Your task to perform on an android device: turn off improve location accuracy Image 0: 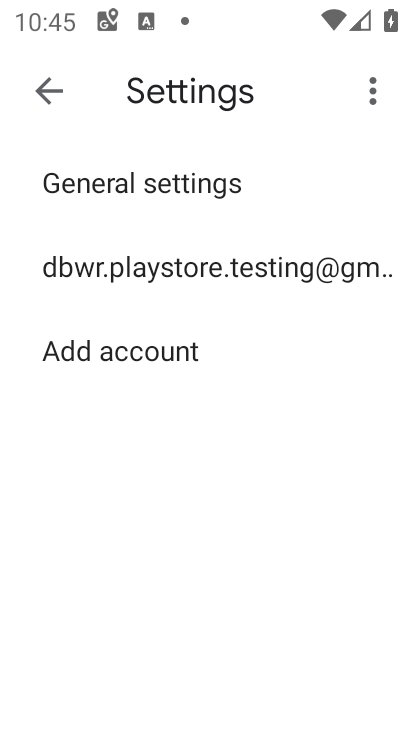
Step 0: press home button
Your task to perform on an android device: turn off improve location accuracy Image 1: 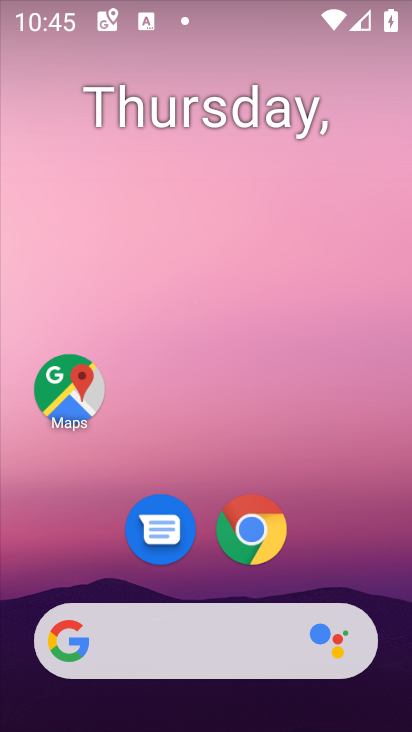
Step 1: drag from (242, 648) to (65, 100)
Your task to perform on an android device: turn off improve location accuracy Image 2: 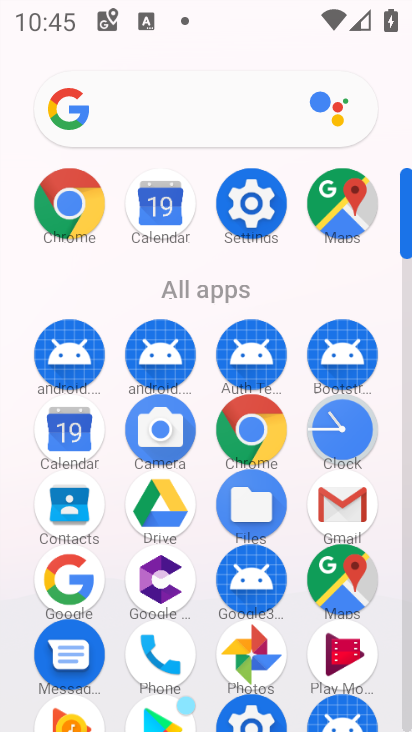
Step 2: click (253, 206)
Your task to perform on an android device: turn off improve location accuracy Image 3: 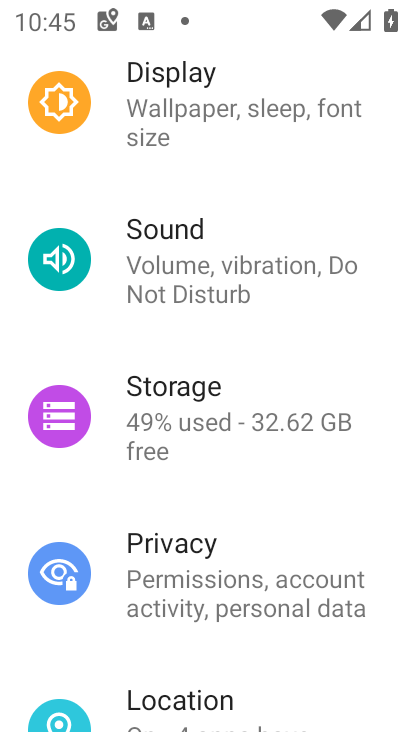
Step 3: click (234, 688)
Your task to perform on an android device: turn off improve location accuracy Image 4: 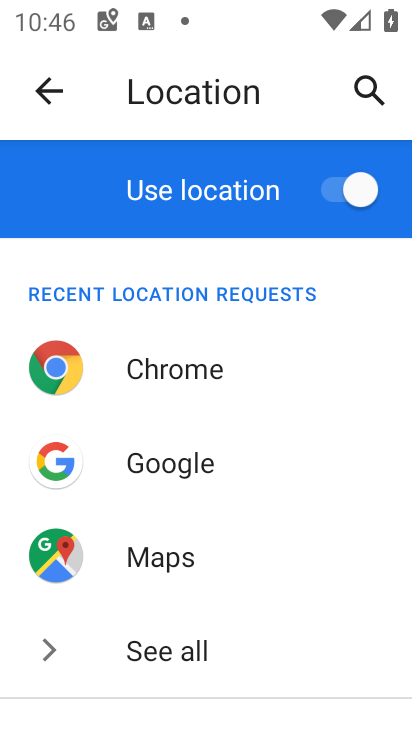
Step 4: drag from (124, 610) to (62, 177)
Your task to perform on an android device: turn off improve location accuracy Image 5: 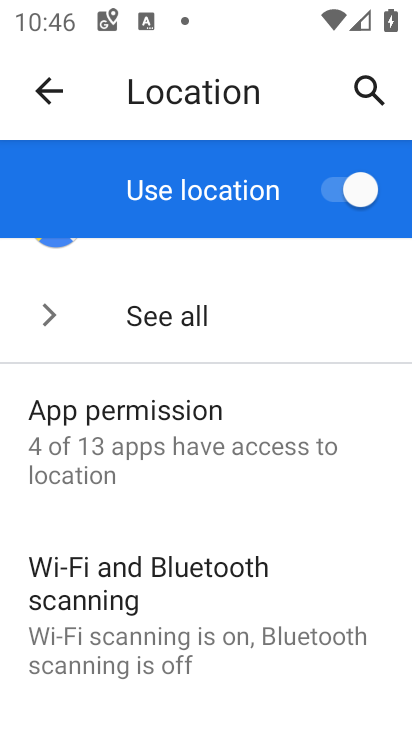
Step 5: drag from (196, 610) to (151, 259)
Your task to perform on an android device: turn off improve location accuracy Image 6: 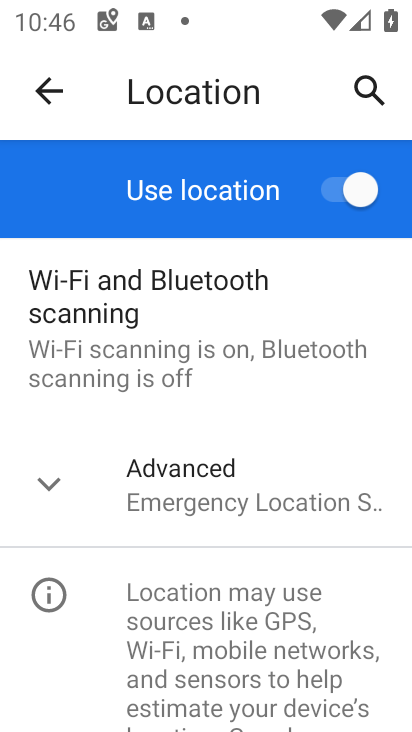
Step 6: click (193, 497)
Your task to perform on an android device: turn off improve location accuracy Image 7: 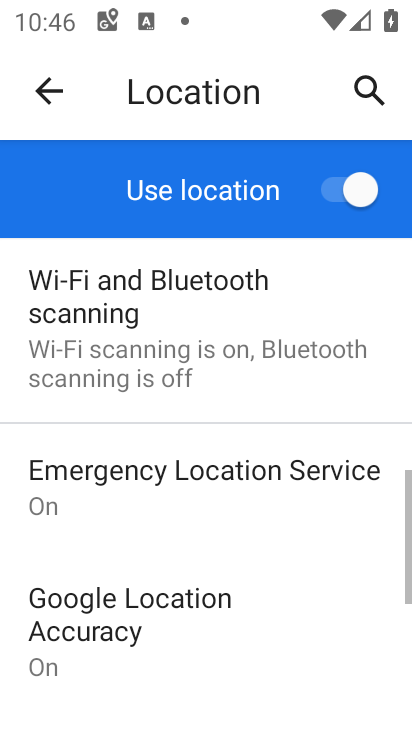
Step 7: drag from (261, 634) to (217, 340)
Your task to perform on an android device: turn off improve location accuracy Image 8: 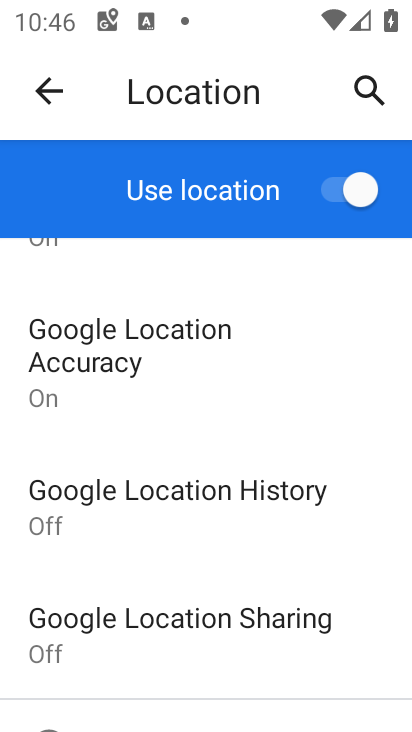
Step 8: click (205, 376)
Your task to perform on an android device: turn off improve location accuracy Image 9: 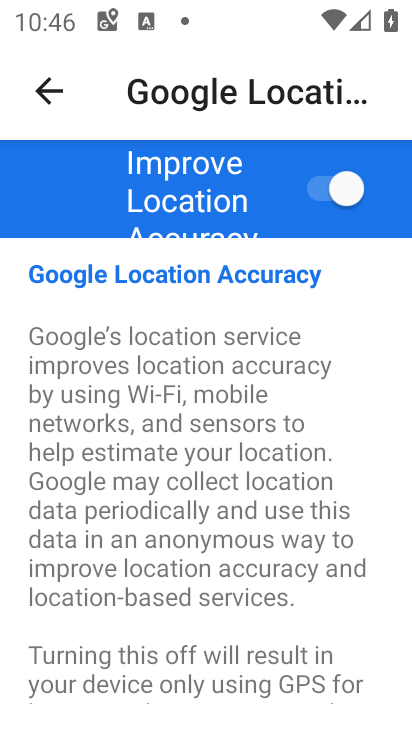
Step 9: click (299, 191)
Your task to perform on an android device: turn off improve location accuracy Image 10: 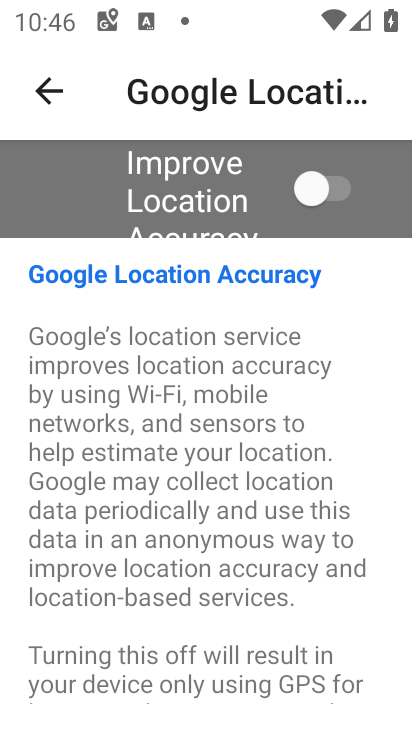
Step 10: task complete